Your task to perform on an android device: Go to privacy settings Image 0: 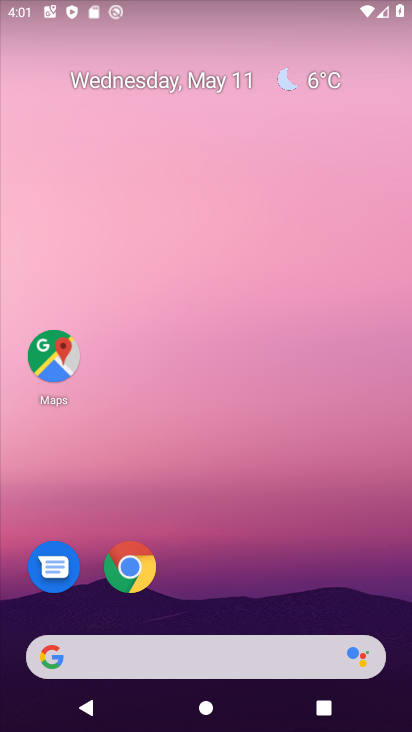
Step 0: drag from (259, 607) to (268, 229)
Your task to perform on an android device: Go to privacy settings Image 1: 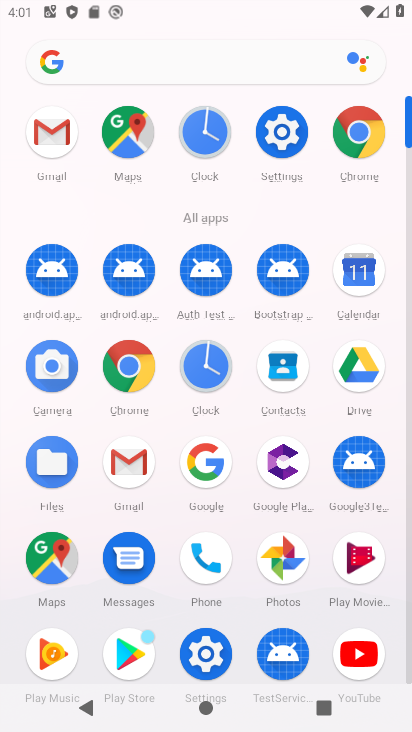
Step 1: click (290, 117)
Your task to perform on an android device: Go to privacy settings Image 2: 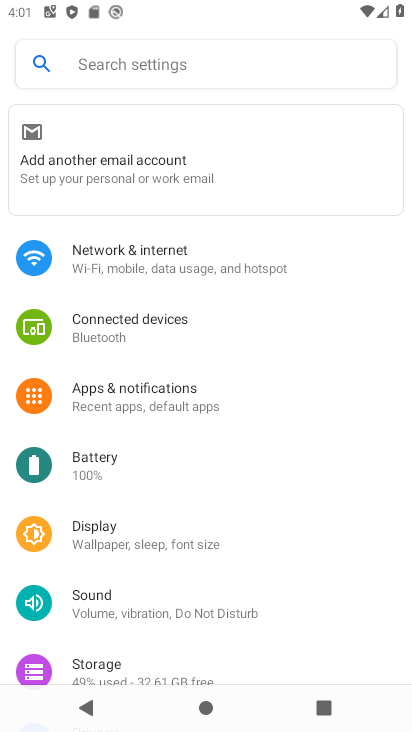
Step 2: drag from (145, 645) to (179, 273)
Your task to perform on an android device: Go to privacy settings Image 3: 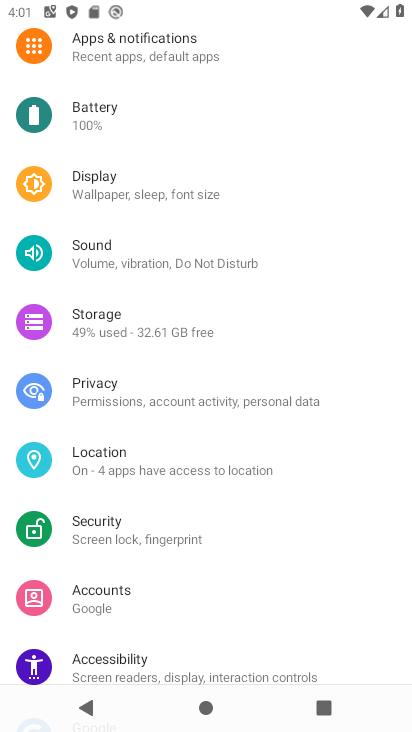
Step 3: drag from (137, 653) to (183, 456)
Your task to perform on an android device: Go to privacy settings Image 4: 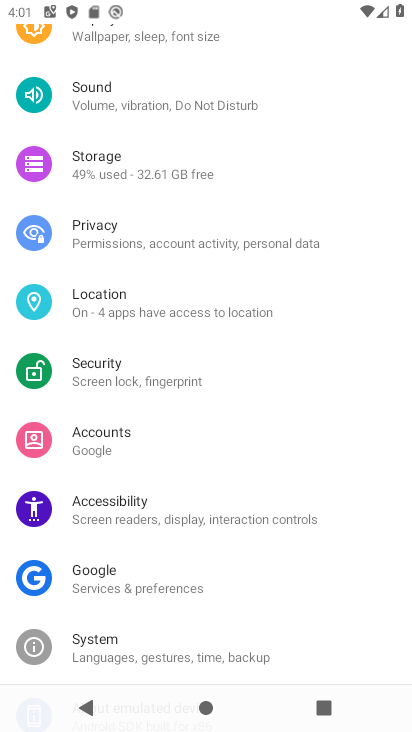
Step 4: click (146, 238)
Your task to perform on an android device: Go to privacy settings Image 5: 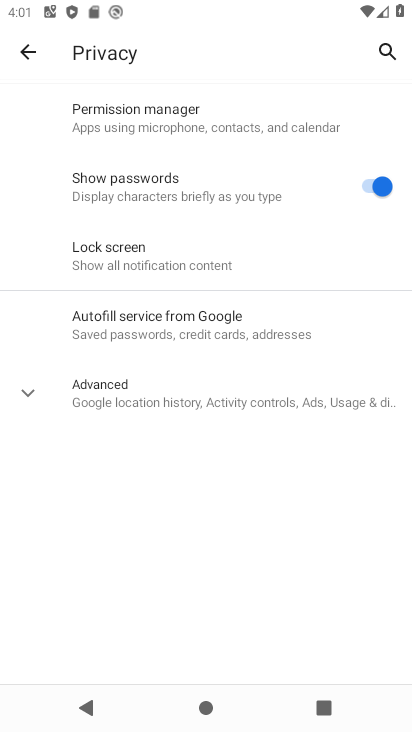
Step 5: task complete